Your task to perform on an android device: Go to eBay Image 0: 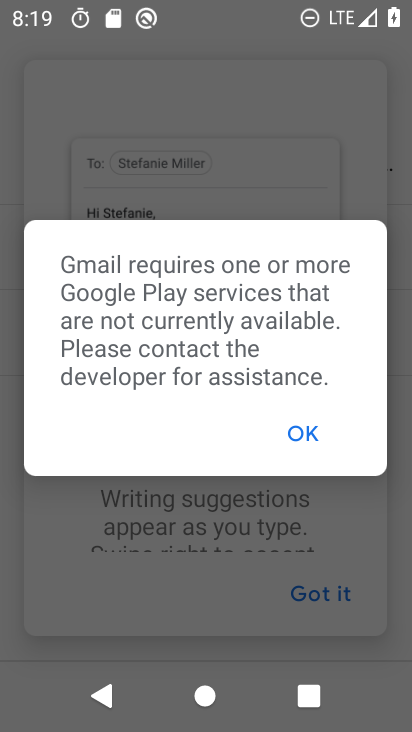
Step 0: press home button
Your task to perform on an android device: Go to eBay Image 1: 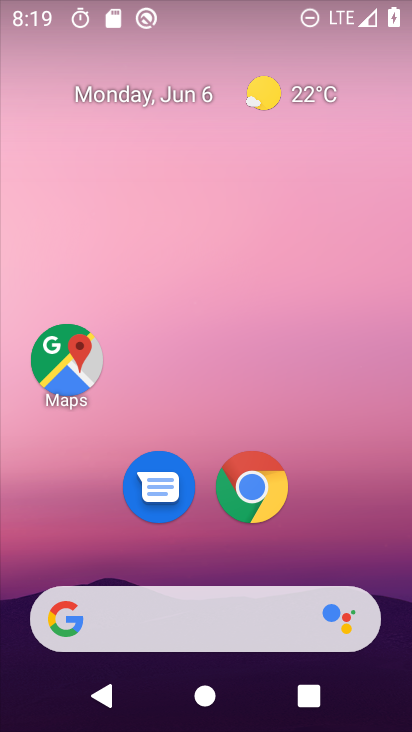
Step 1: drag from (402, 632) to (319, 102)
Your task to perform on an android device: Go to eBay Image 2: 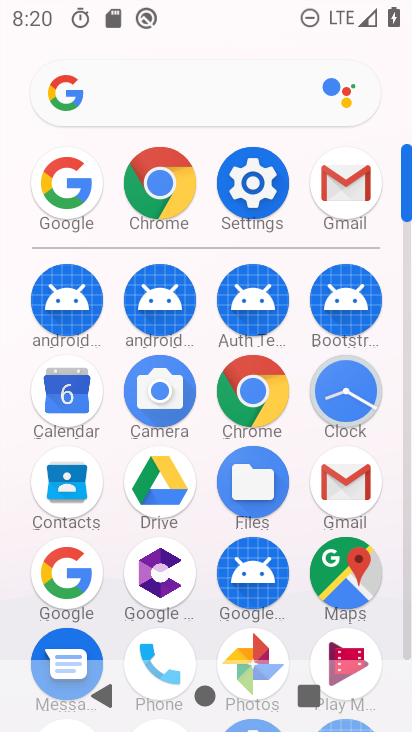
Step 2: click (47, 566)
Your task to perform on an android device: Go to eBay Image 3: 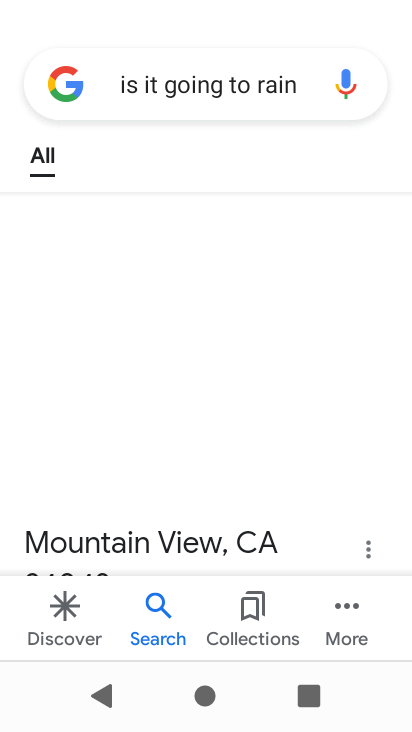
Step 3: press back button
Your task to perform on an android device: Go to eBay Image 4: 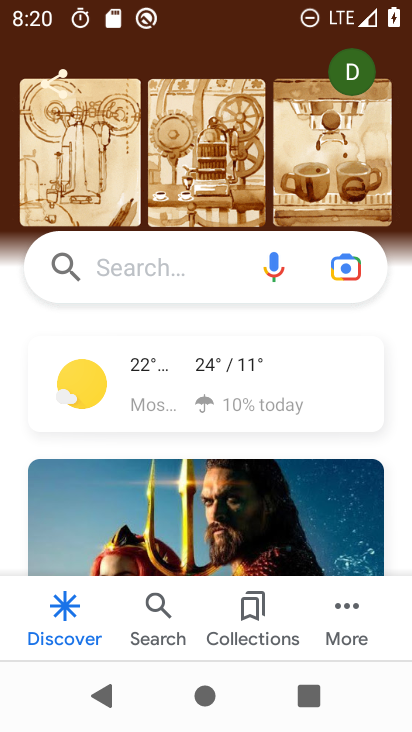
Step 4: click (145, 260)
Your task to perform on an android device: Go to eBay Image 5: 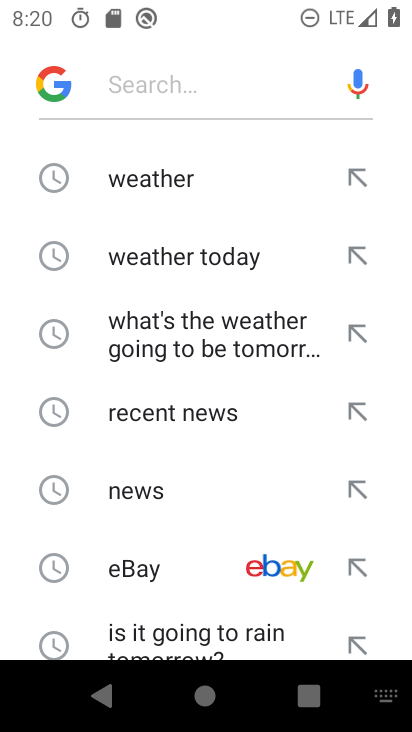
Step 5: click (157, 559)
Your task to perform on an android device: Go to eBay Image 6: 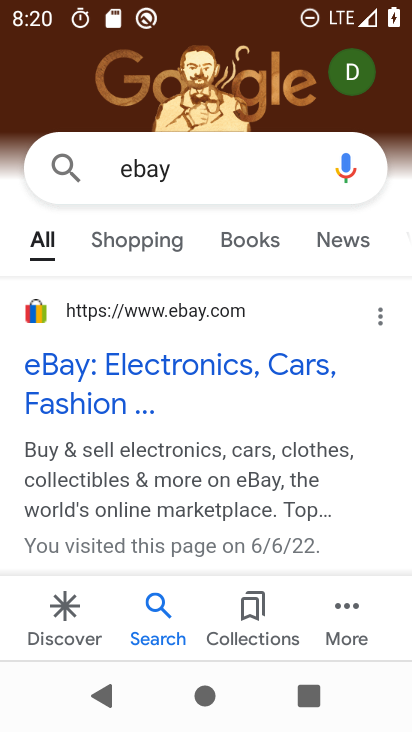
Step 6: task complete